Your task to perform on an android device: What's on my calendar tomorrow? Image 0: 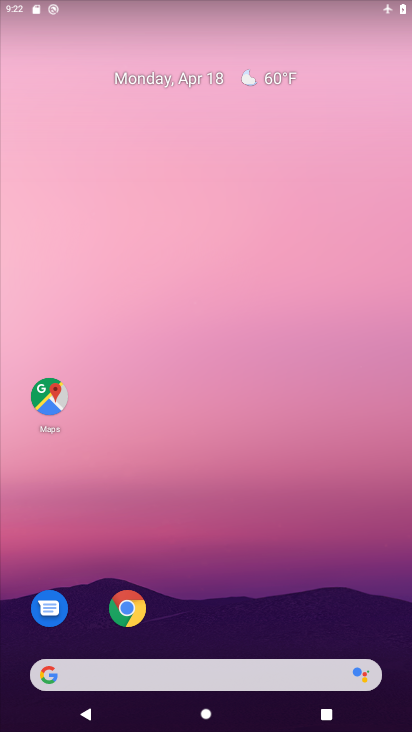
Step 0: drag from (268, 497) to (327, 85)
Your task to perform on an android device: What's on my calendar tomorrow? Image 1: 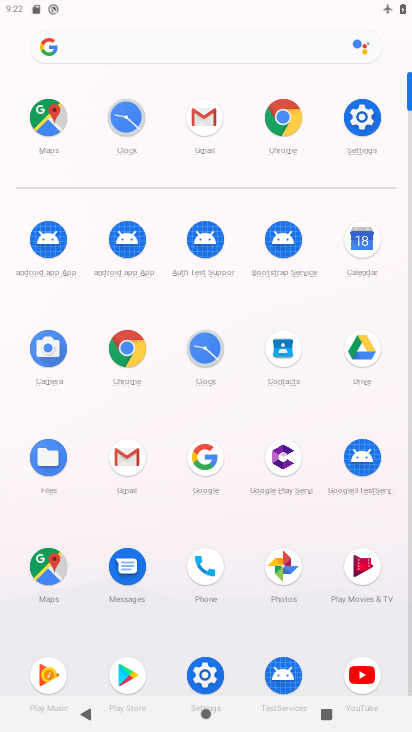
Step 1: click (366, 238)
Your task to perform on an android device: What's on my calendar tomorrow? Image 2: 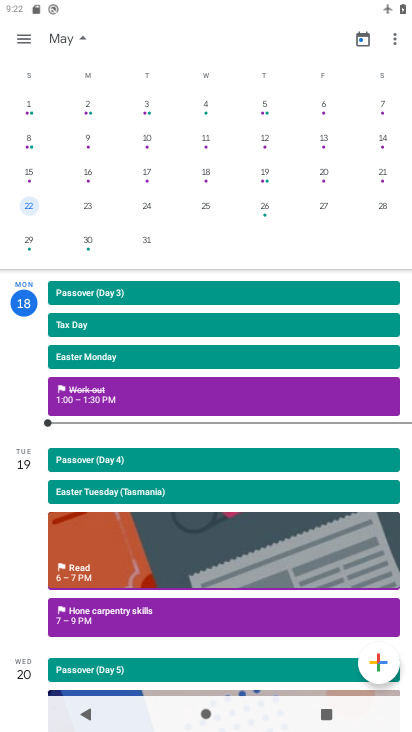
Step 2: task complete